Your task to perform on an android device: Clear the cart on costco.com. Search for razer naga on costco.com, select the first entry, and add it to the cart. Image 0: 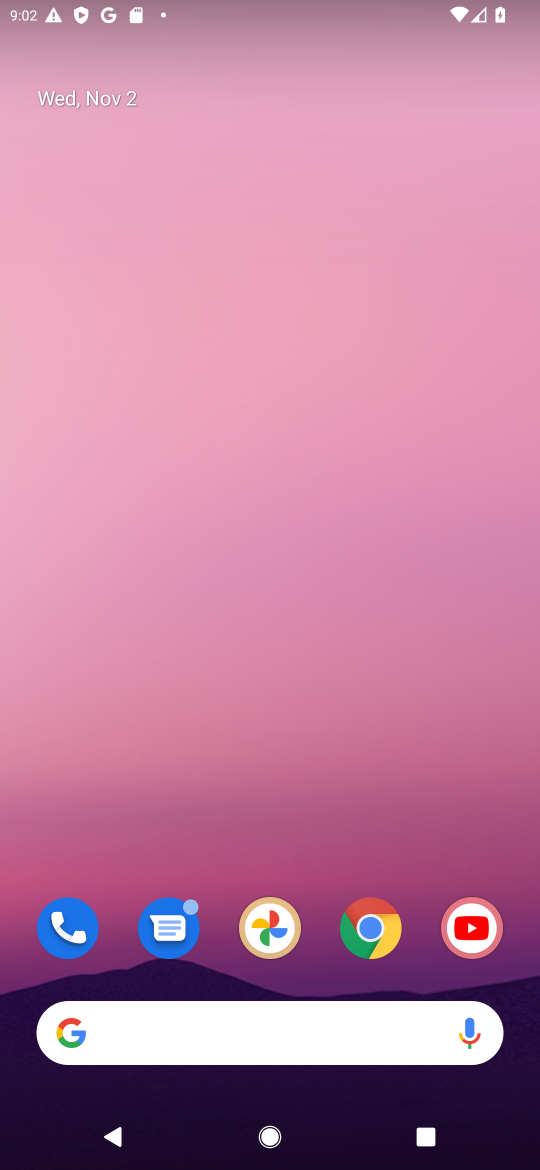
Step 0: click (362, 926)
Your task to perform on an android device: Clear the cart on costco.com. Search for razer naga on costco.com, select the first entry, and add it to the cart. Image 1: 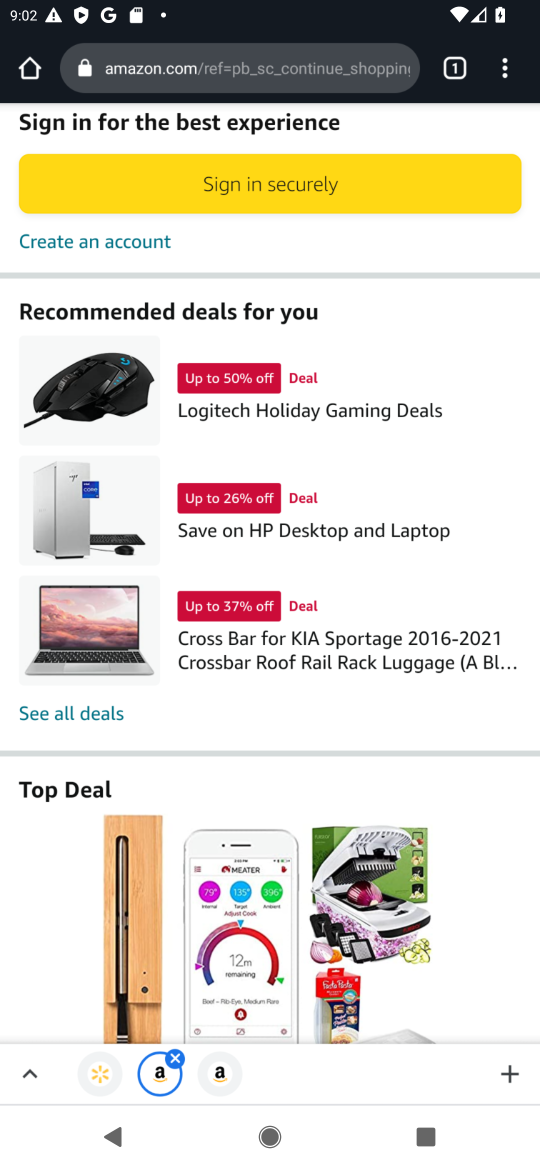
Step 1: click (243, 61)
Your task to perform on an android device: Clear the cart on costco.com. Search for razer naga on costco.com, select the first entry, and add it to the cart. Image 2: 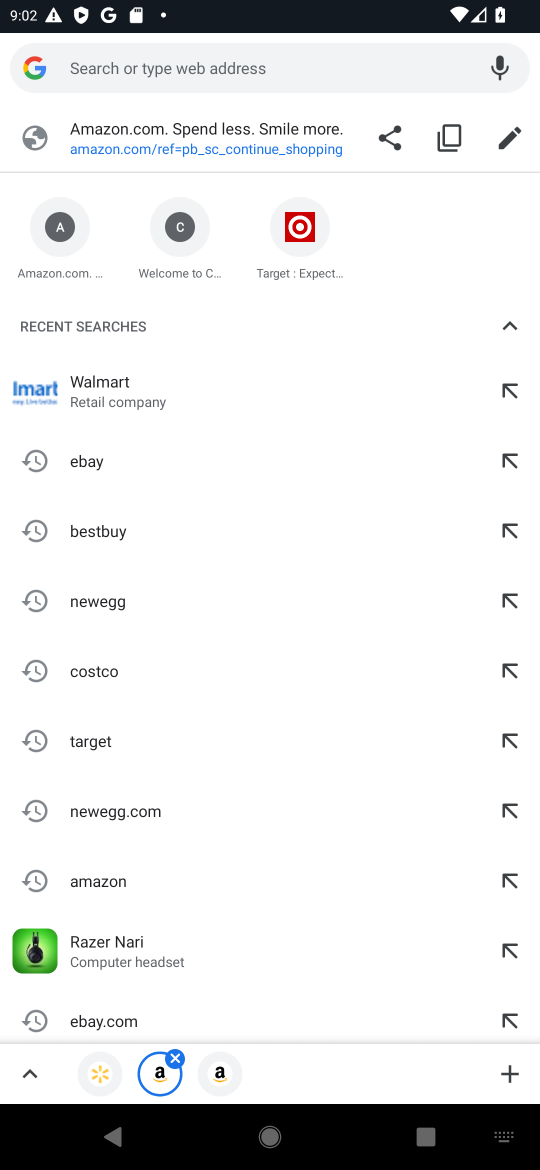
Step 2: type "costco.com"
Your task to perform on an android device: Clear the cart on costco.com. Search for razer naga on costco.com, select the first entry, and add it to the cart. Image 3: 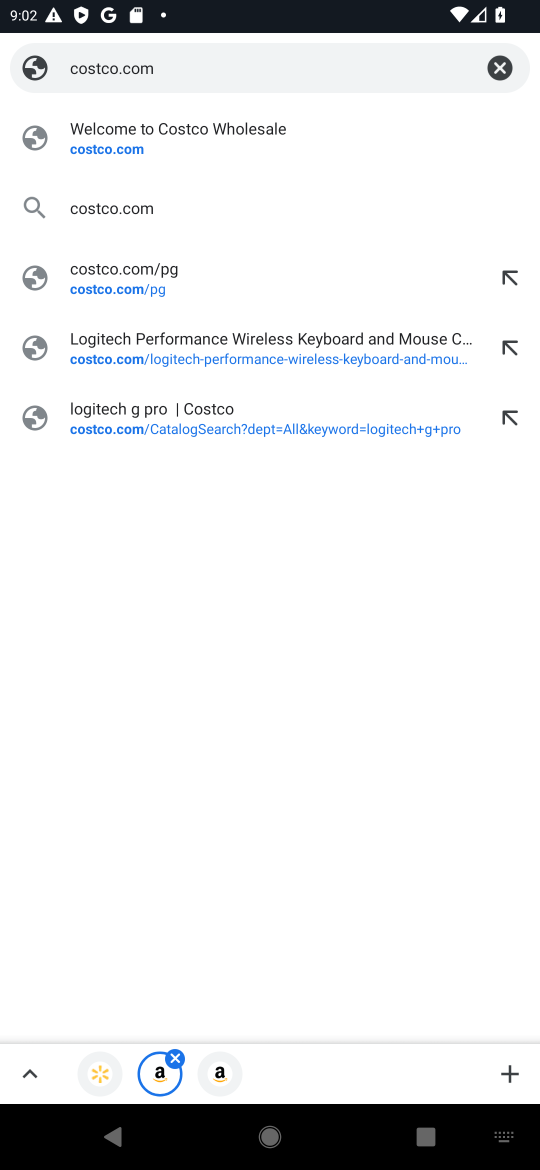
Step 3: click (262, 141)
Your task to perform on an android device: Clear the cart on costco.com. Search for razer naga on costco.com, select the first entry, and add it to the cart. Image 4: 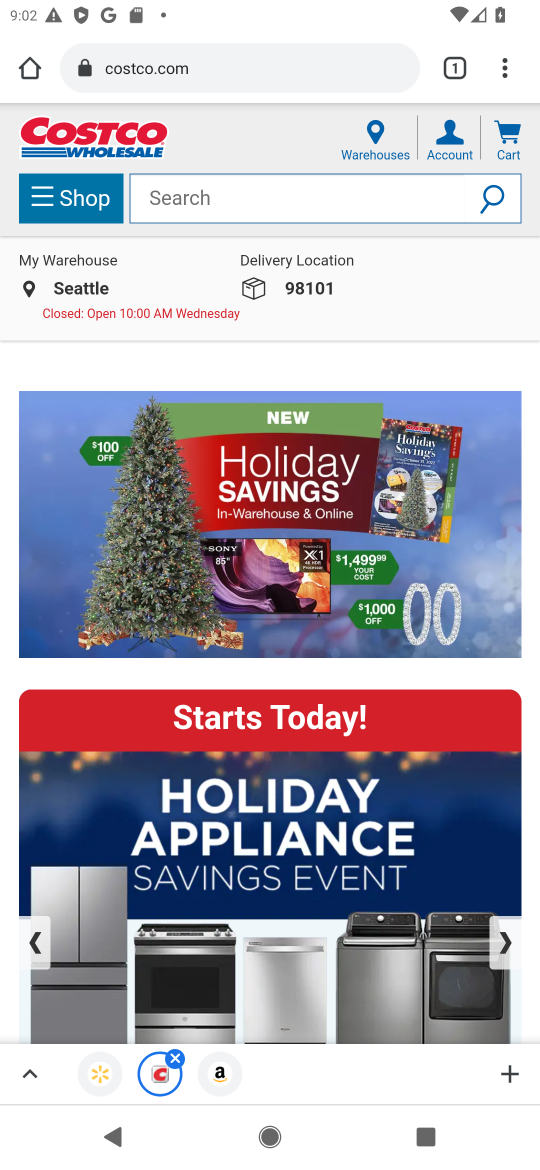
Step 4: click (505, 136)
Your task to perform on an android device: Clear the cart on costco.com. Search for razer naga on costco.com, select the first entry, and add it to the cart. Image 5: 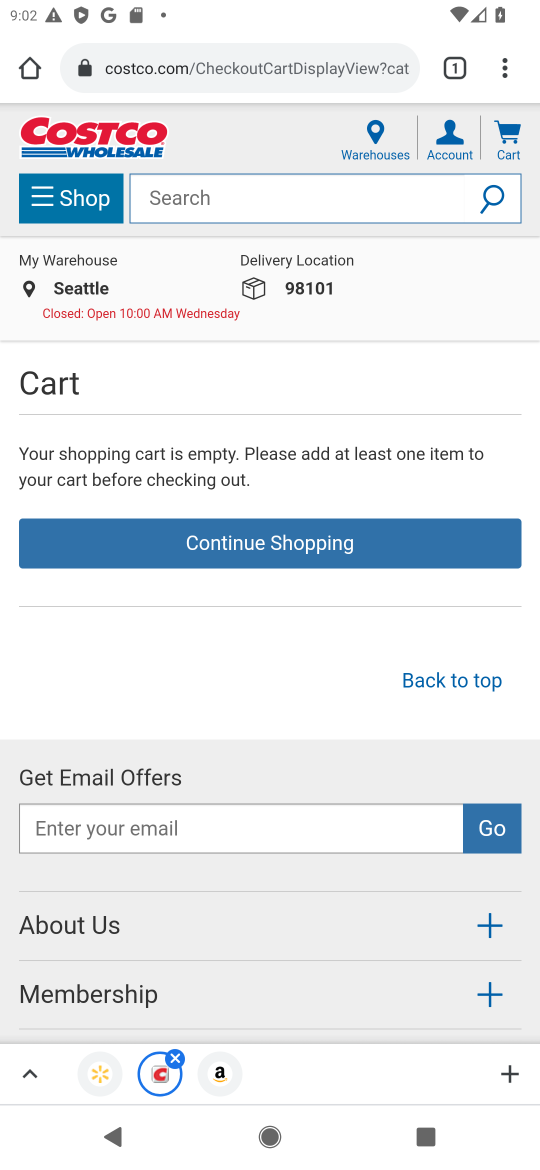
Step 5: click (256, 204)
Your task to perform on an android device: Clear the cart on costco.com. Search for razer naga on costco.com, select the first entry, and add it to the cart. Image 6: 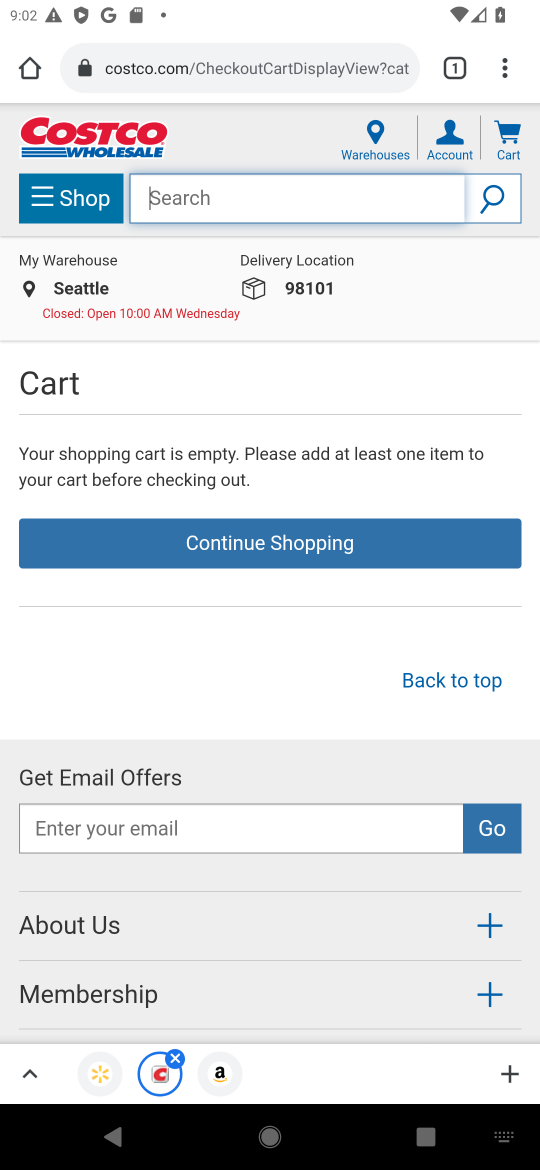
Step 6: type "razer naga"
Your task to perform on an android device: Clear the cart on costco.com. Search for razer naga on costco.com, select the first entry, and add it to the cart. Image 7: 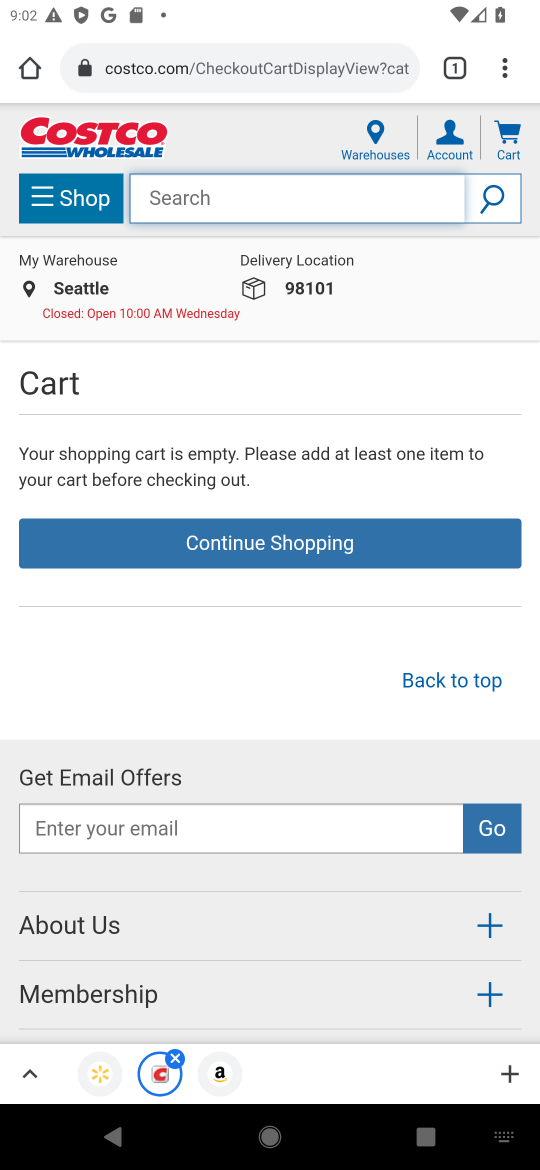
Step 7: type ""
Your task to perform on an android device: Clear the cart on costco.com. Search for razer naga on costco.com, select the first entry, and add it to the cart. Image 8: 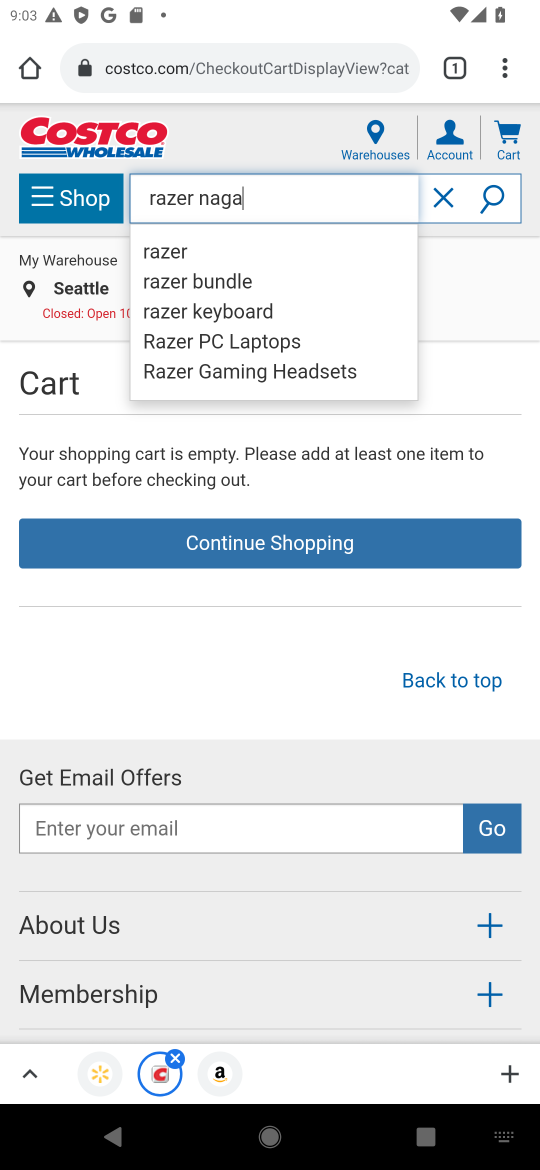
Step 8: click (483, 197)
Your task to perform on an android device: Clear the cart on costco.com. Search for razer naga on costco.com, select the first entry, and add it to the cart. Image 9: 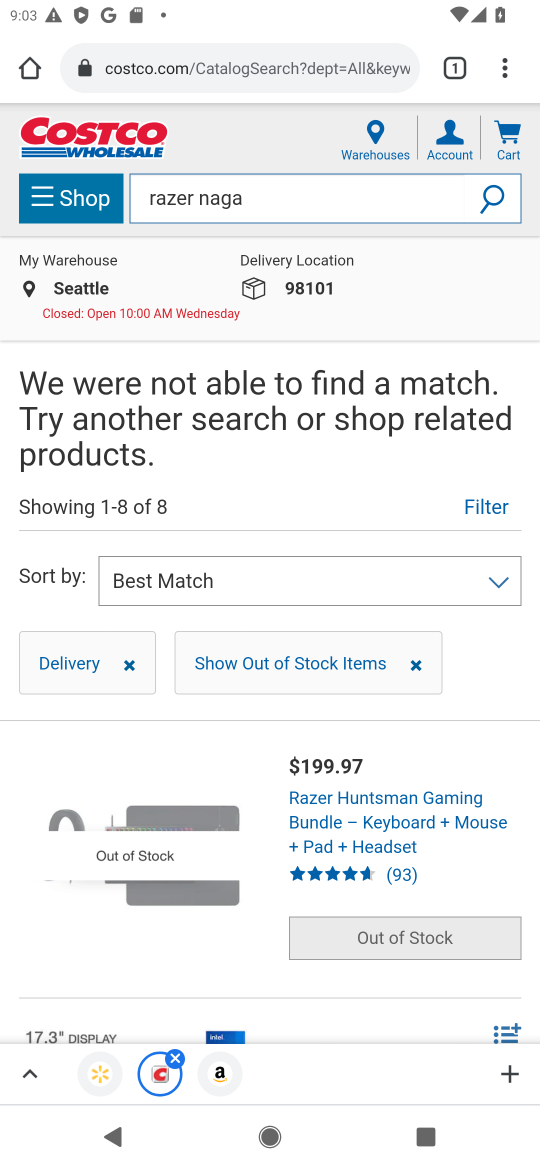
Step 9: task complete